Your task to perform on an android device: turn on data saver in the chrome app Image 0: 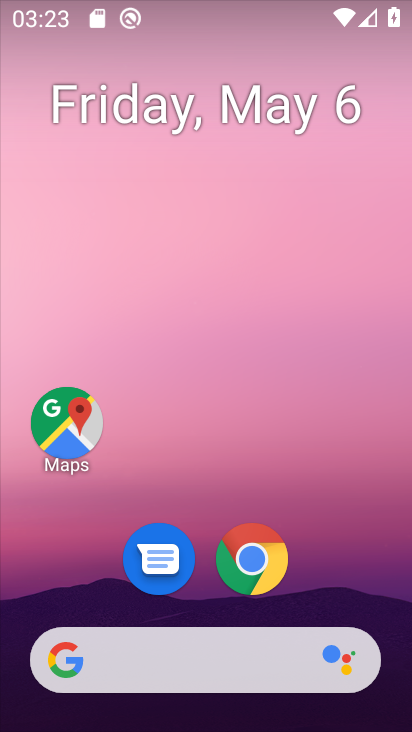
Step 0: click (265, 559)
Your task to perform on an android device: turn on data saver in the chrome app Image 1: 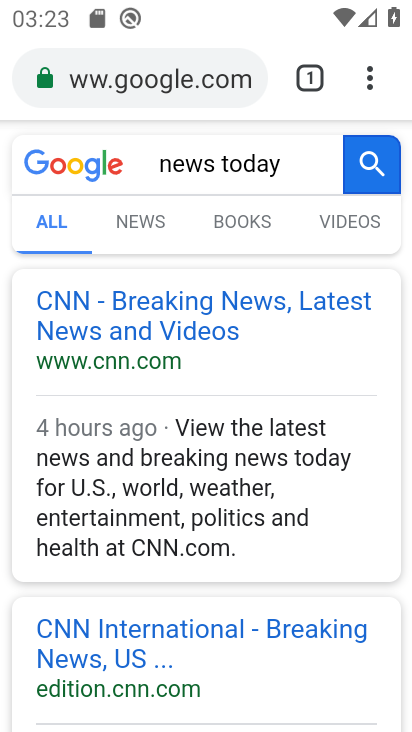
Step 1: click (360, 77)
Your task to perform on an android device: turn on data saver in the chrome app Image 2: 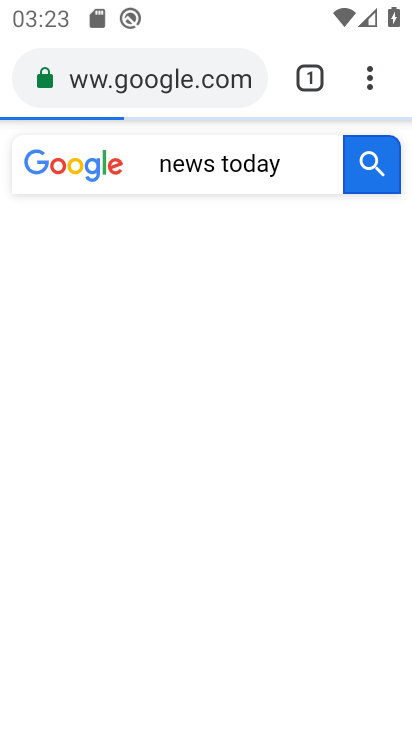
Step 2: drag from (349, 177) to (330, 229)
Your task to perform on an android device: turn on data saver in the chrome app Image 3: 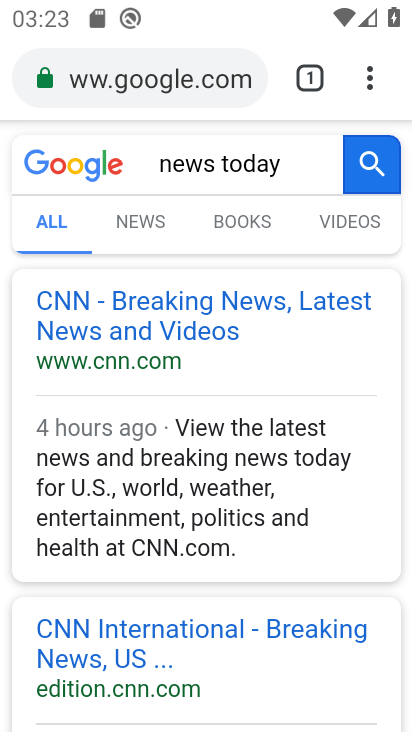
Step 3: drag from (366, 70) to (158, 620)
Your task to perform on an android device: turn on data saver in the chrome app Image 4: 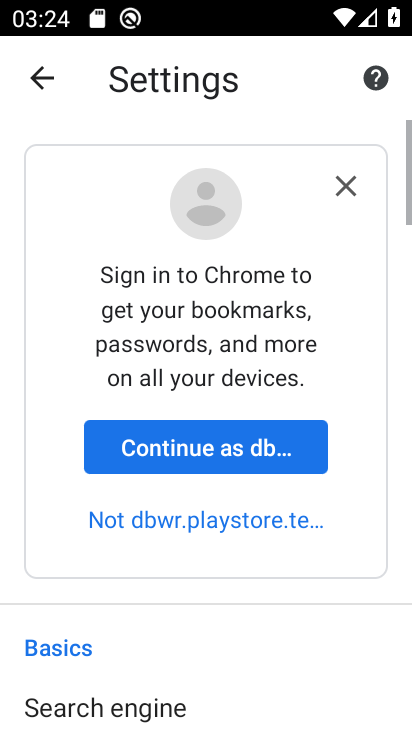
Step 4: drag from (245, 675) to (139, 126)
Your task to perform on an android device: turn on data saver in the chrome app Image 5: 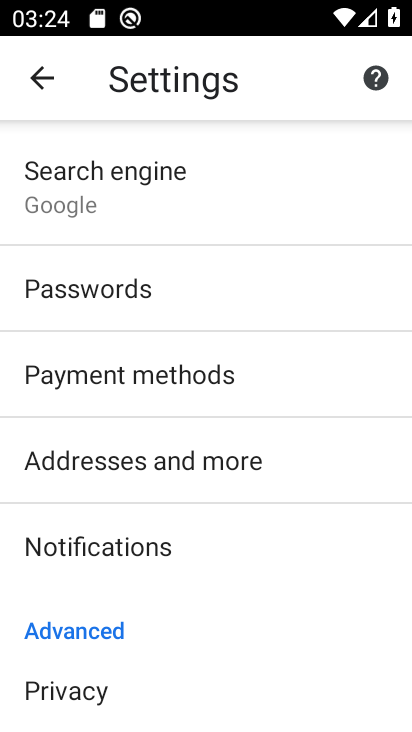
Step 5: drag from (168, 676) to (184, 212)
Your task to perform on an android device: turn on data saver in the chrome app Image 6: 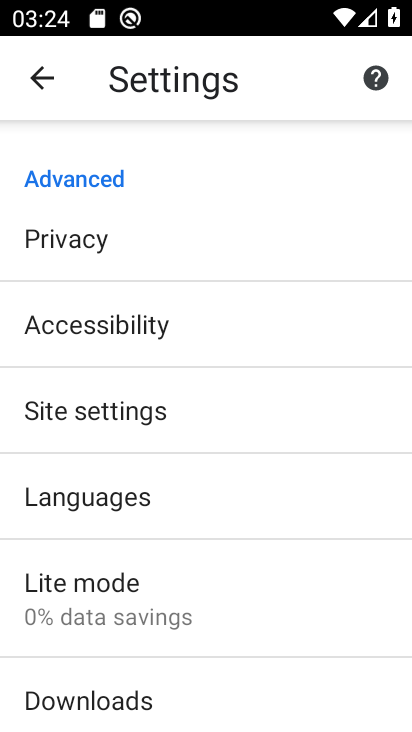
Step 6: click (144, 599)
Your task to perform on an android device: turn on data saver in the chrome app Image 7: 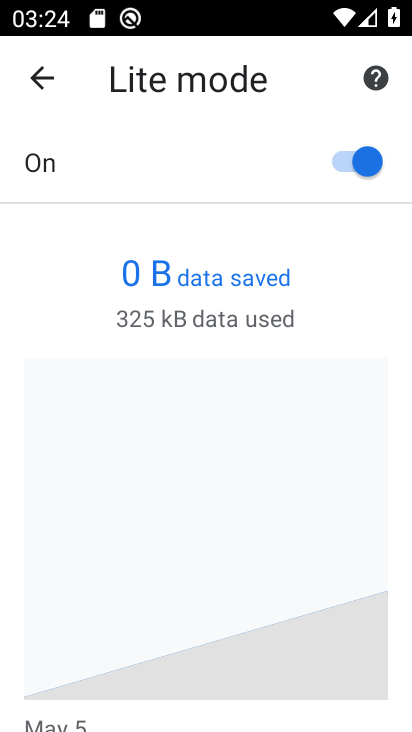
Step 7: task complete